Your task to perform on an android device: Open the map Image 0: 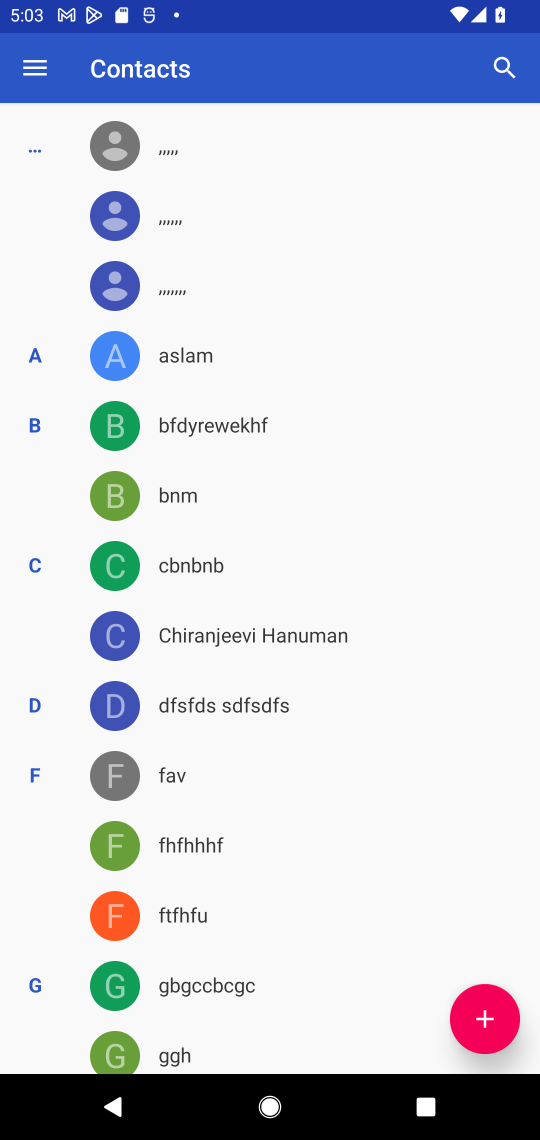
Step 0: press home button
Your task to perform on an android device: Open the map Image 1: 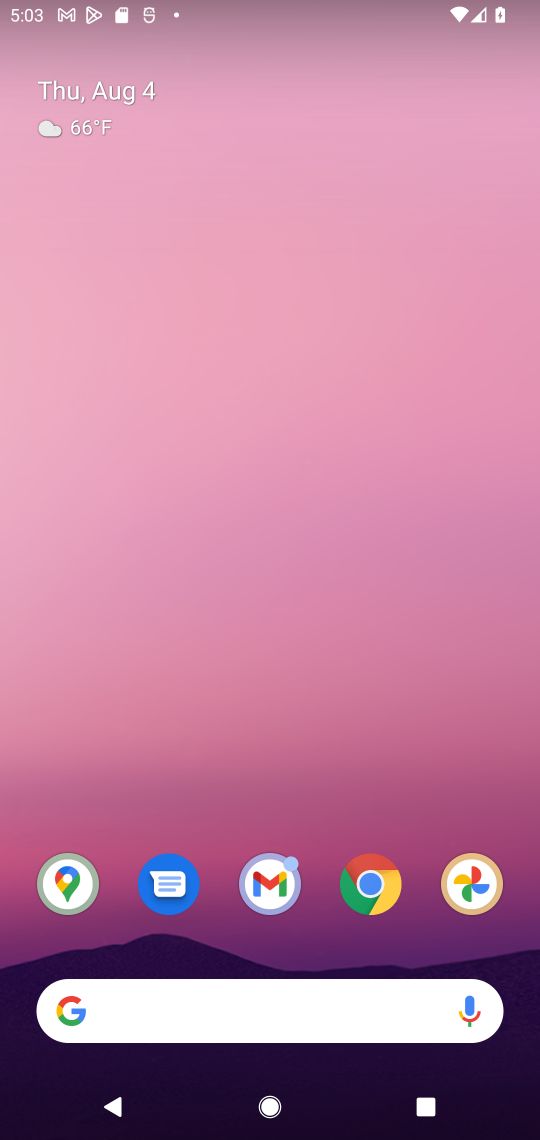
Step 1: click (90, 889)
Your task to perform on an android device: Open the map Image 2: 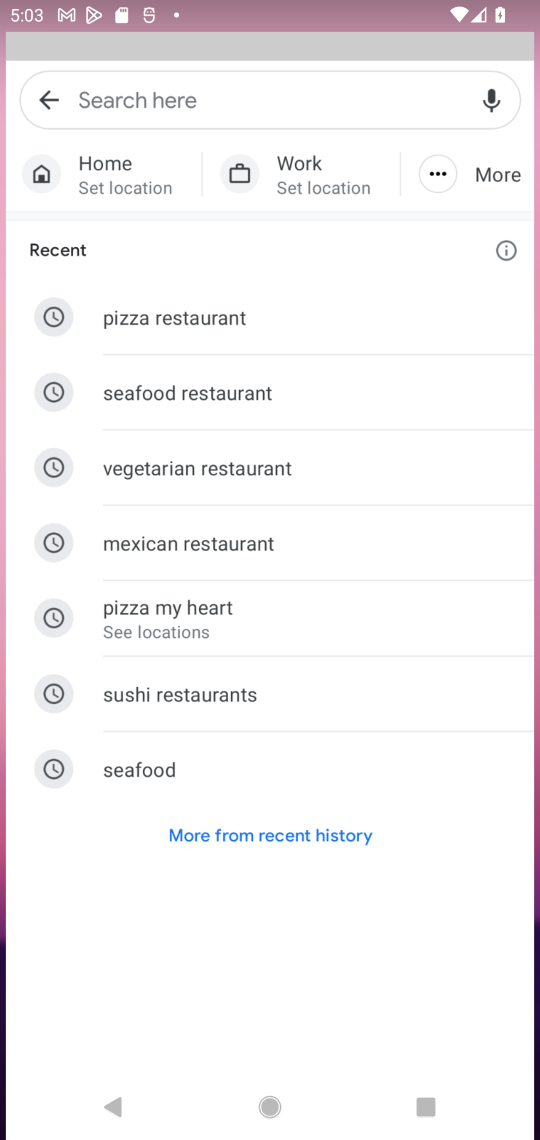
Step 2: task complete